Your task to perform on an android device: check out phone information Image 0: 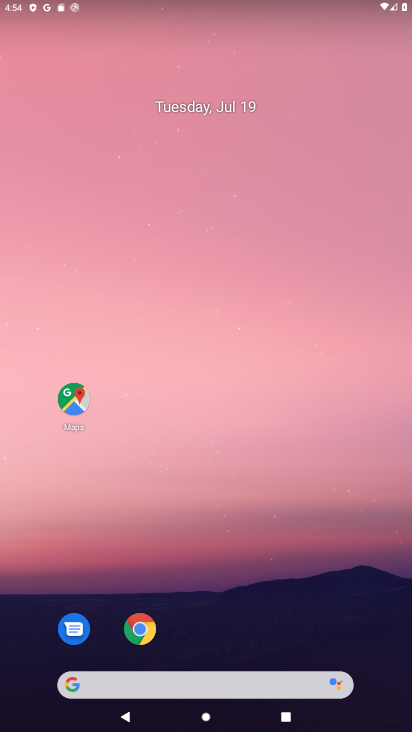
Step 0: drag from (279, 588) to (177, 116)
Your task to perform on an android device: check out phone information Image 1: 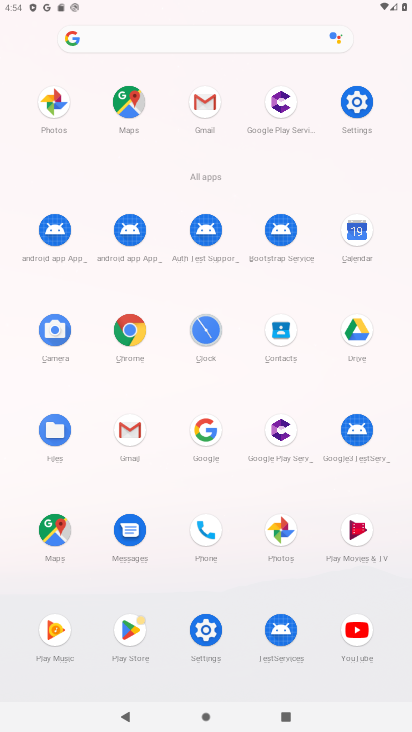
Step 1: click (353, 93)
Your task to perform on an android device: check out phone information Image 2: 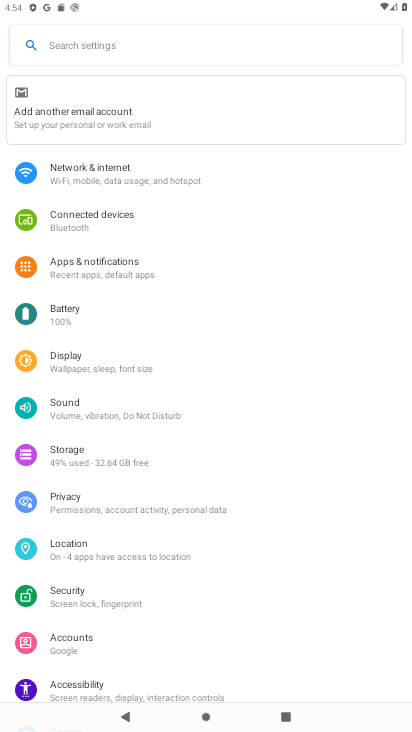
Step 2: drag from (253, 644) to (210, 176)
Your task to perform on an android device: check out phone information Image 3: 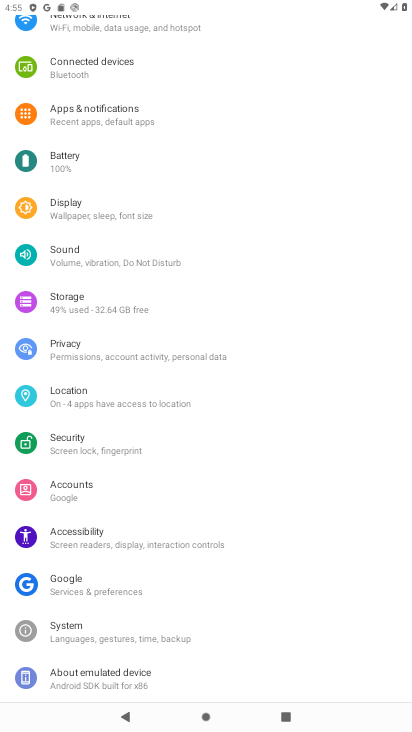
Step 3: click (112, 681)
Your task to perform on an android device: check out phone information Image 4: 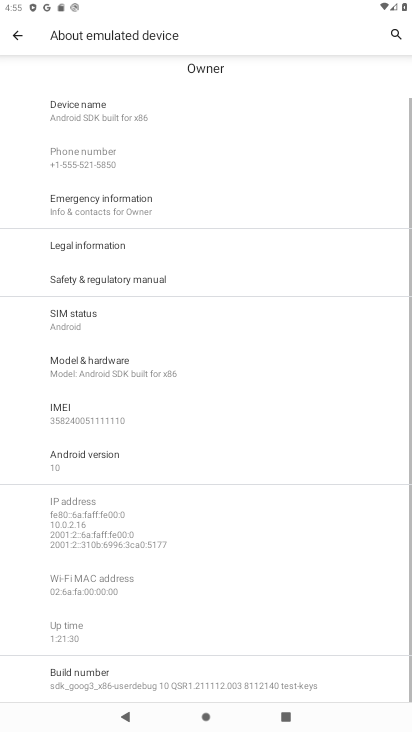
Step 4: click (190, 366)
Your task to perform on an android device: check out phone information Image 5: 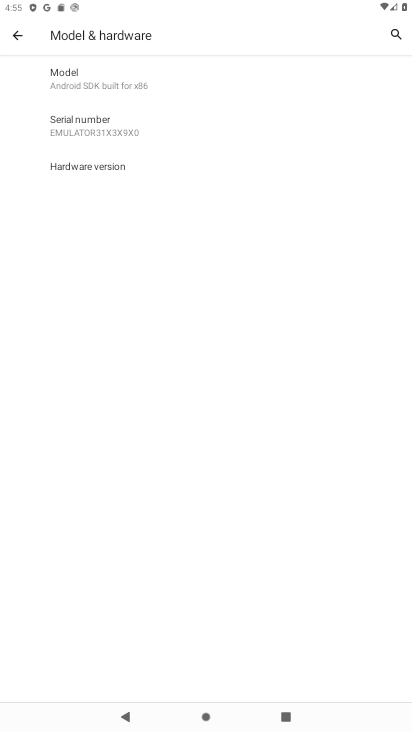
Step 5: task complete